Your task to perform on an android device: What's on my calendar today? Image 0: 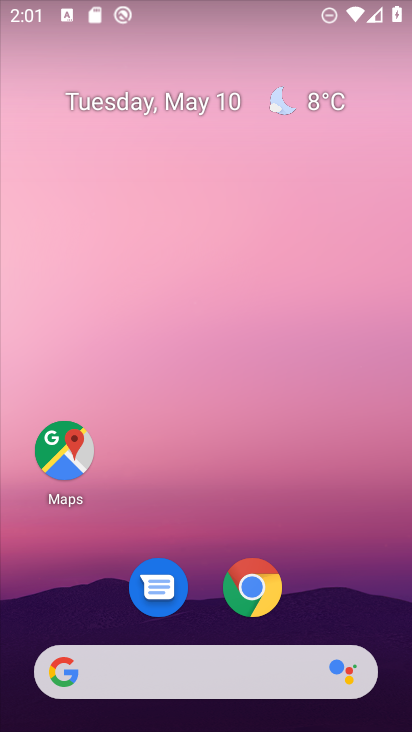
Step 0: drag from (396, 670) to (359, 176)
Your task to perform on an android device: What's on my calendar today? Image 1: 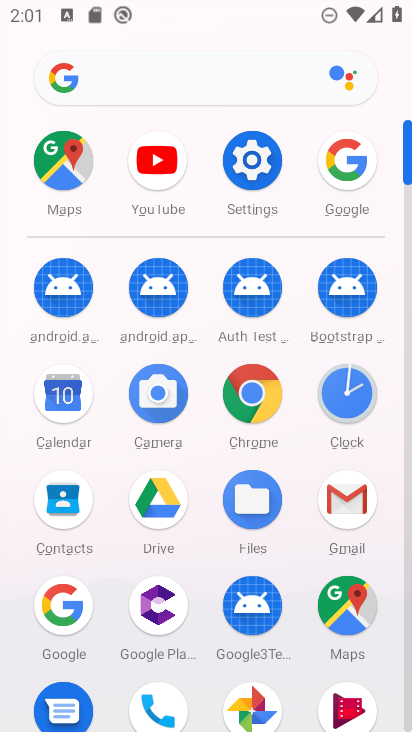
Step 1: click (52, 411)
Your task to perform on an android device: What's on my calendar today? Image 2: 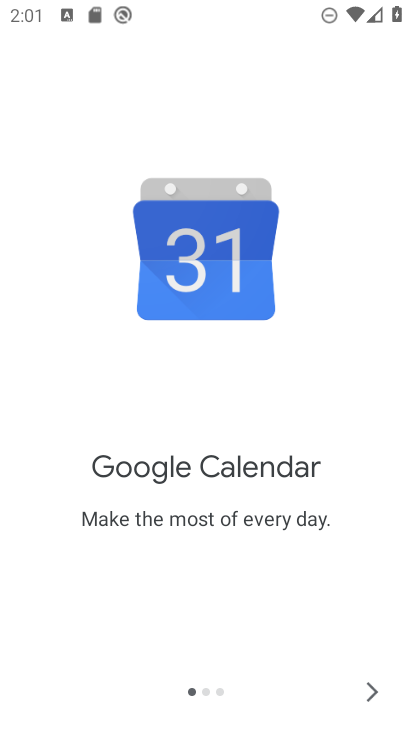
Step 2: click (375, 683)
Your task to perform on an android device: What's on my calendar today? Image 3: 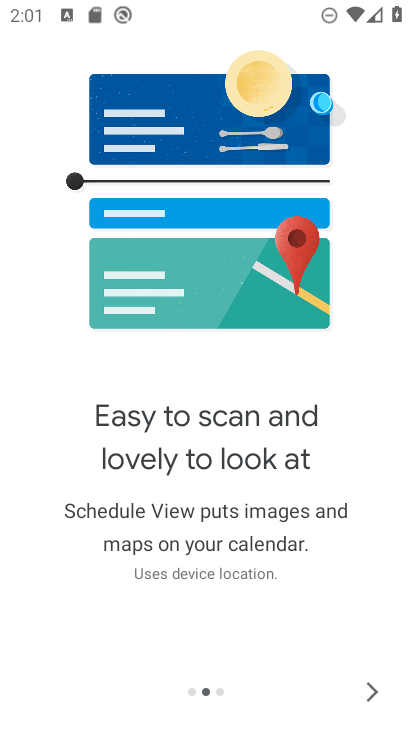
Step 3: click (375, 683)
Your task to perform on an android device: What's on my calendar today? Image 4: 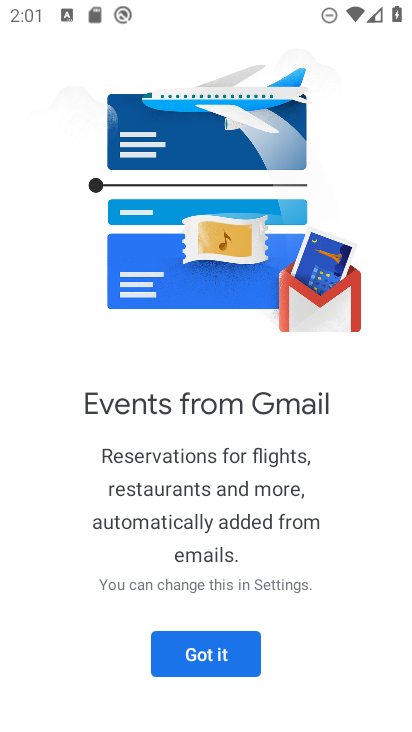
Step 4: click (171, 634)
Your task to perform on an android device: What's on my calendar today? Image 5: 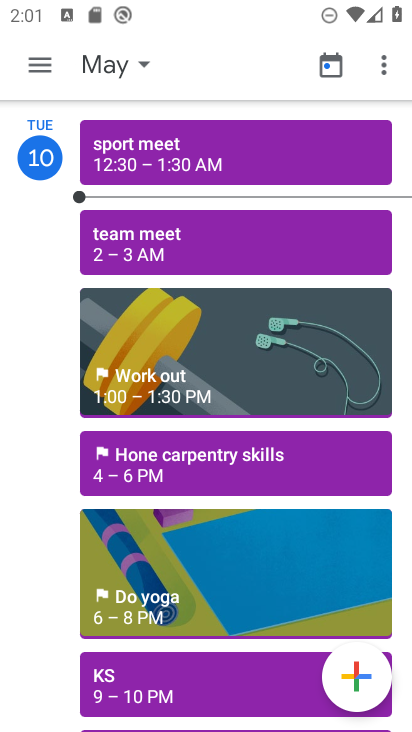
Step 5: click (199, 648)
Your task to perform on an android device: What's on my calendar today? Image 6: 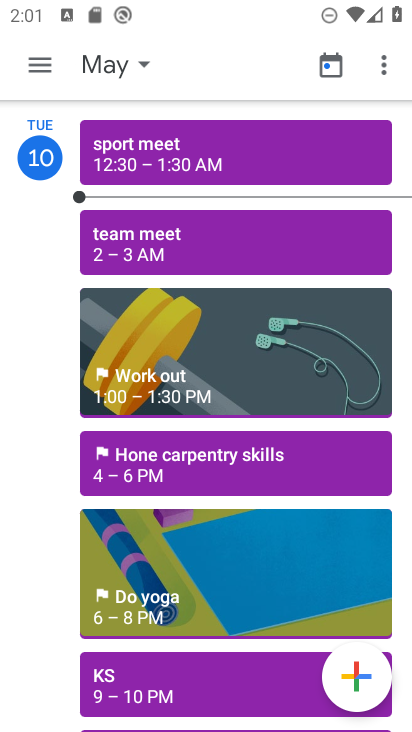
Step 6: click (140, 62)
Your task to perform on an android device: What's on my calendar today? Image 7: 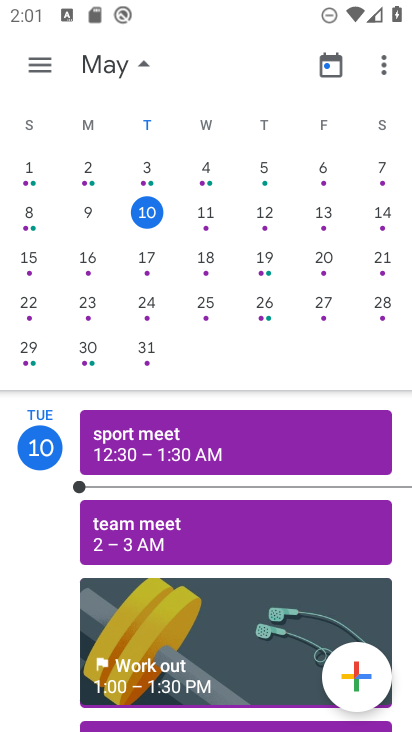
Step 7: click (142, 59)
Your task to perform on an android device: What's on my calendar today? Image 8: 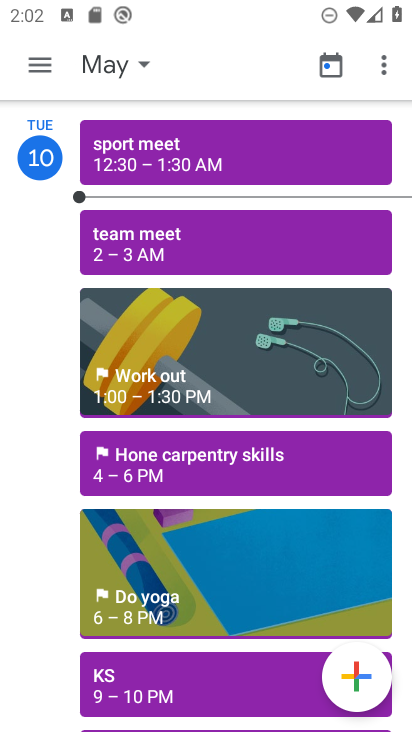
Step 8: task complete